Your task to perform on an android device: open the mobile data screen to see how much data has been used Image 0: 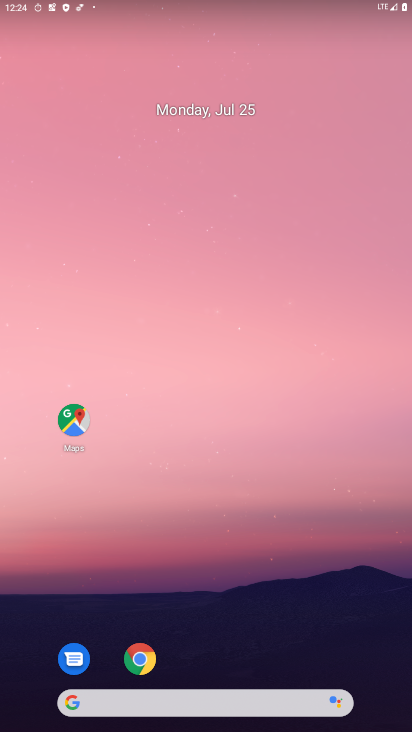
Step 0: drag from (46, 638) to (263, 215)
Your task to perform on an android device: open the mobile data screen to see how much data has been used Image 1: 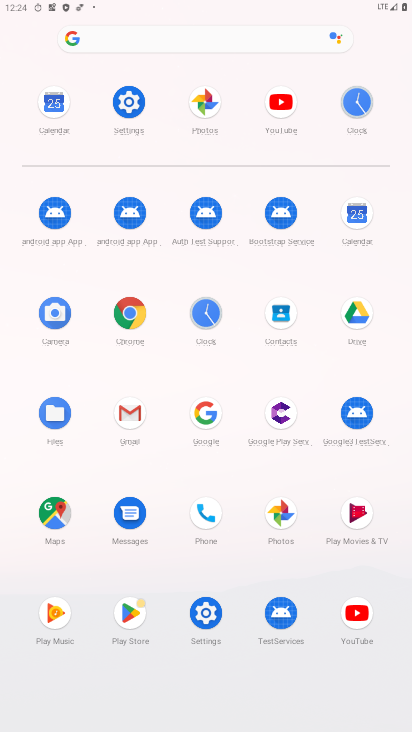
Step 1: click (211, 626)
Your task to perform on an android device: open the mobile data screen to see how much data has been used Image 2: 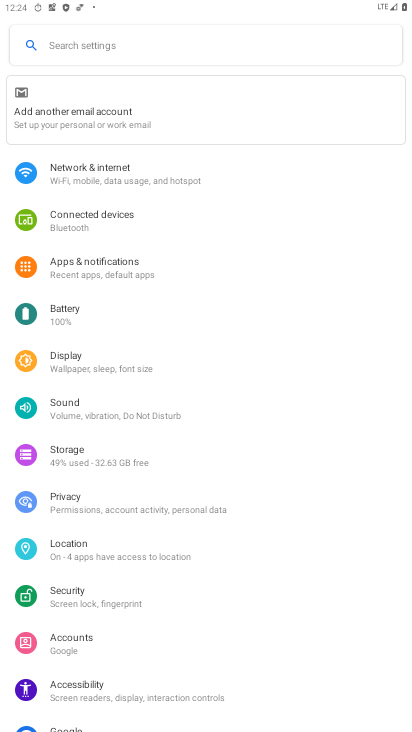
Step 2: click (111, 166)
Your task to perform on an android device: open the mobile data screen to see how much data has been used Image 3: 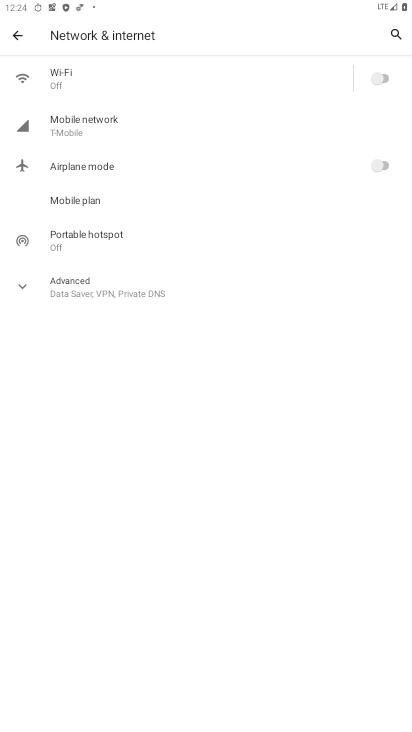
Step 3: click (113, 133)
Your task to perform on an android device: open the mobile data screen to see how much data has been used Image 4: 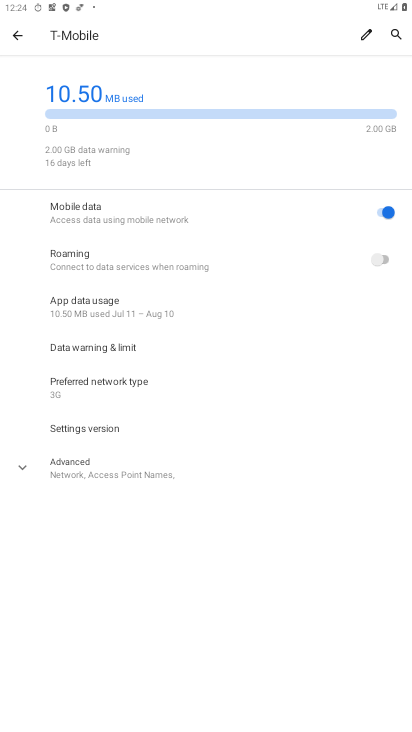
Step 4: task complete